Your task to perform on an android device: Open Google Chrome and open the bookmarks view Image 0: 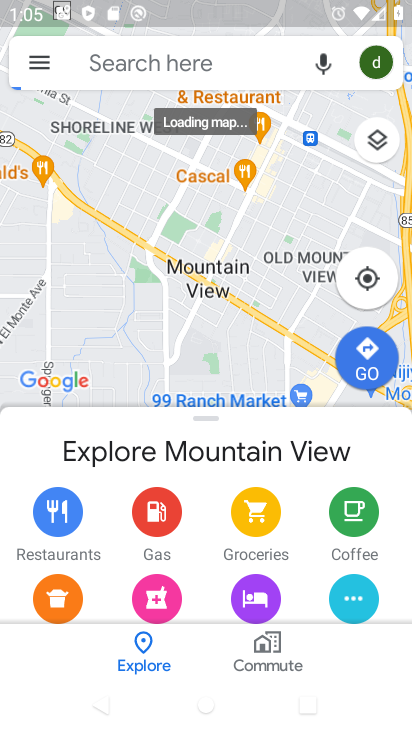
Step 0: press home button
Your task to perform on an android device: Open Google Chrome and open the bookmarks view Image 1: 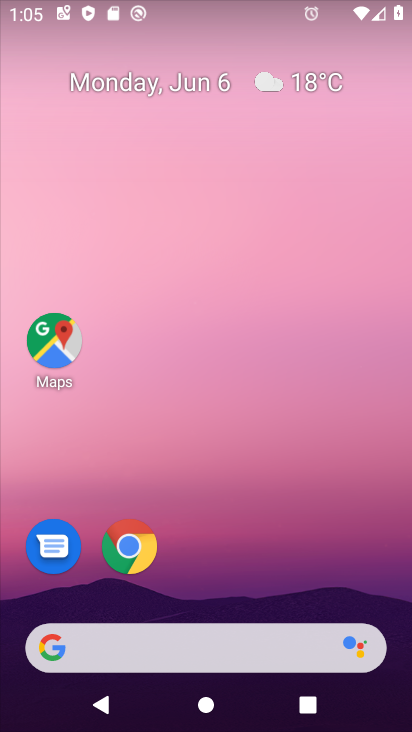
Step 1: drag from (235, 600) to (231, 163)
Your task to perform on an android device: Open Google Chrome and open the bookmarks view Image 2: 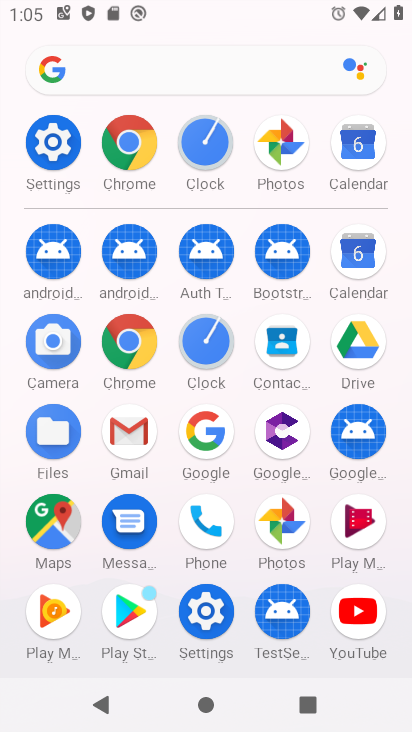
Step 2: click (132, 143)
Your task to perform on an android device: Open Google Chrome and open the bookmarks view Image 3: 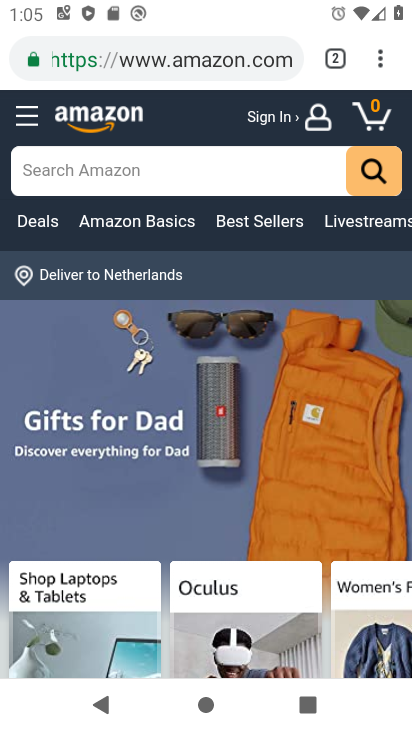
Step 3: click (381, 59)
Your task to perform on an android device: Open Google Chrome and open the bookmarks view Image 4: 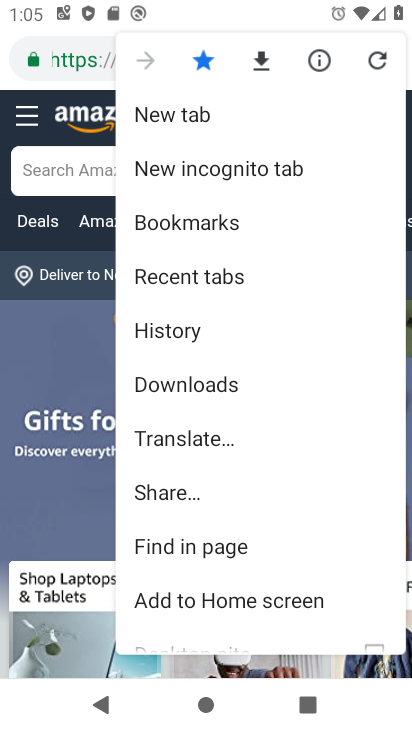
Step 4: click (203, 227)
Your task to perform on an android device: Open Google Chrome and open the bookmarks view Image 5: 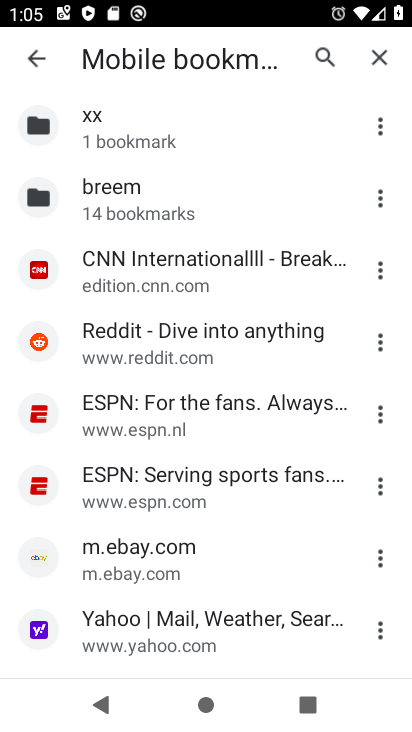
Step 5: task complete